Your task to perform on an android device: Open wifi settings Image 0: 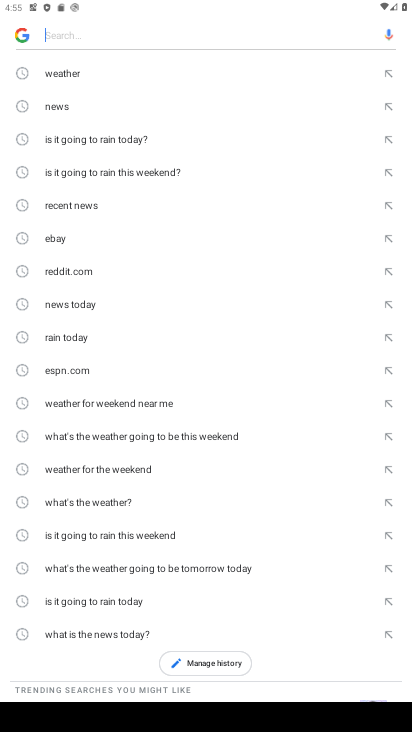
Step 0: press home button
Your task to perform on an android device: Open wifi settings Image 1: 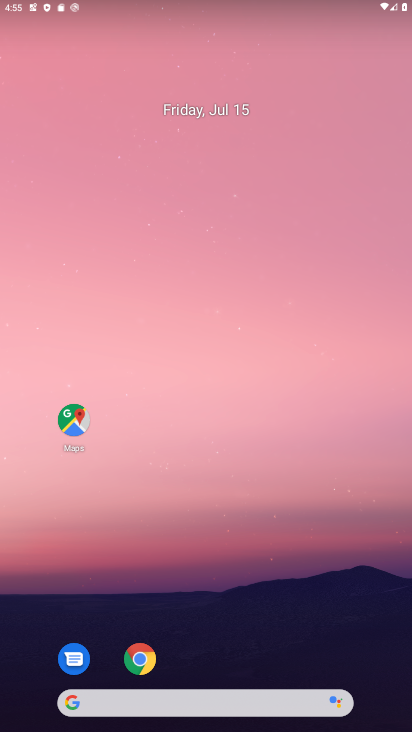
Step 1: drag from (317, 622) to (286, 108)
Your task to perform on an android device: Open wifi settings Image 2: 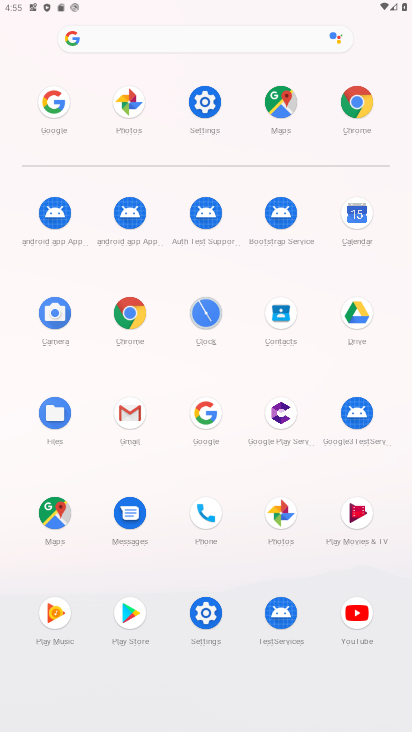
Step 2: click (204, 99)
Your task to perform on an android device: Open wifi settings Image 3: 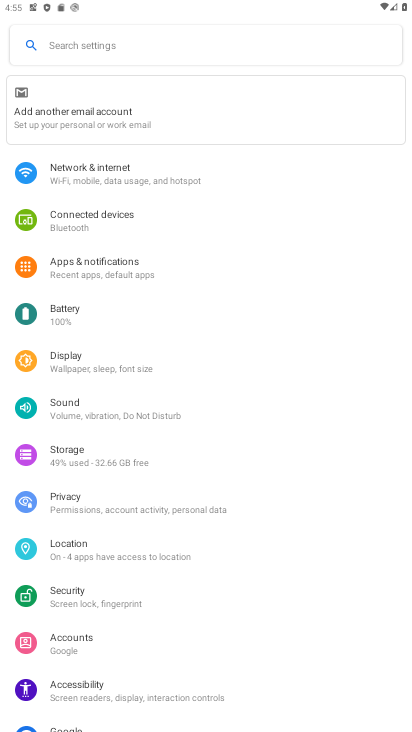
Step 3: click (103, 181)
Your task to perform on an android device: Open wifi settings Image 4: 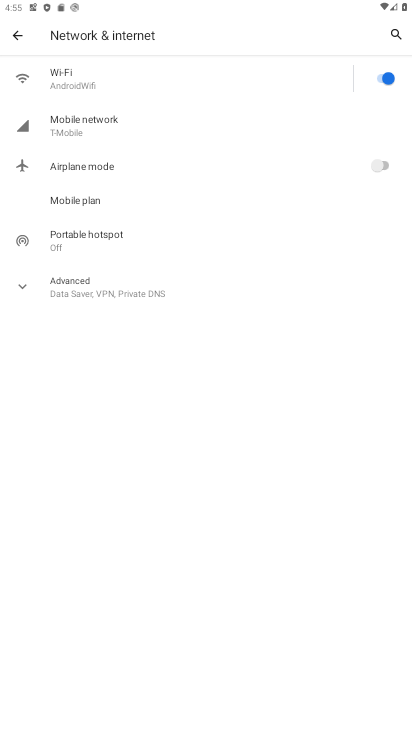
Step 4: click (126, 90)
Your task to perform on an android device: Open wifi settings Image 5: 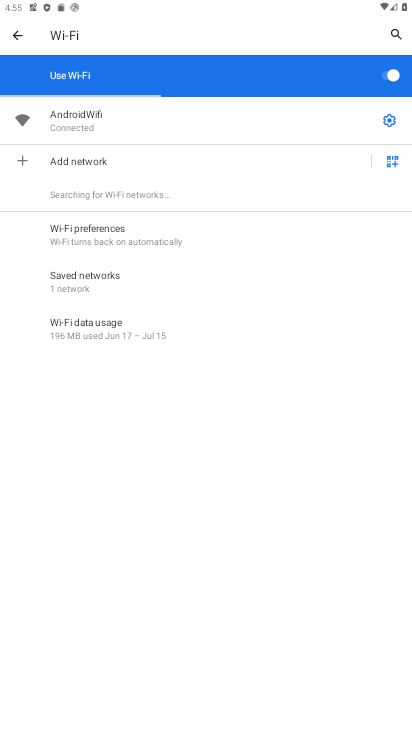
Step 5: task complete